Your task to perform on an android device: turn off picture-in-picture Image 0: 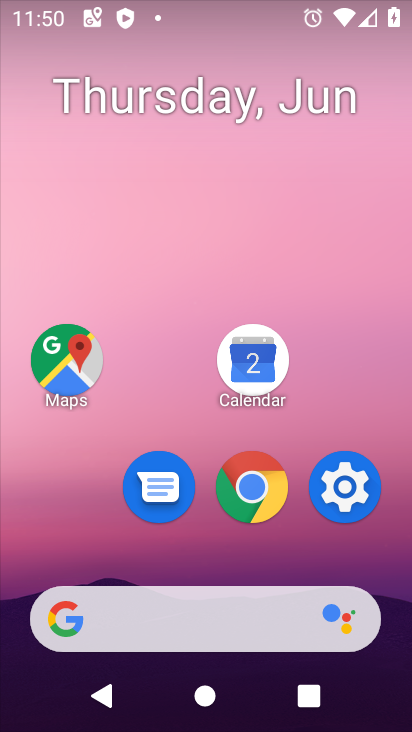
Step 0: click (337, 498)
Your task to perform on an android device: turn off picture-in-picture Image 1: 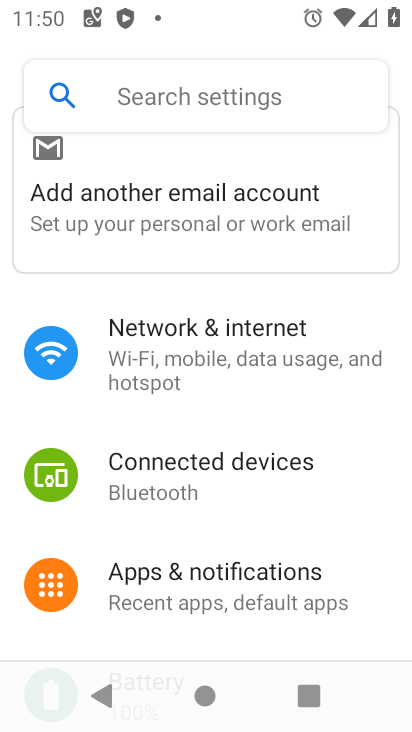
Step 1: click (189, 94)
Your task to perform on an android device: turn off picture-in-picture Image 2: 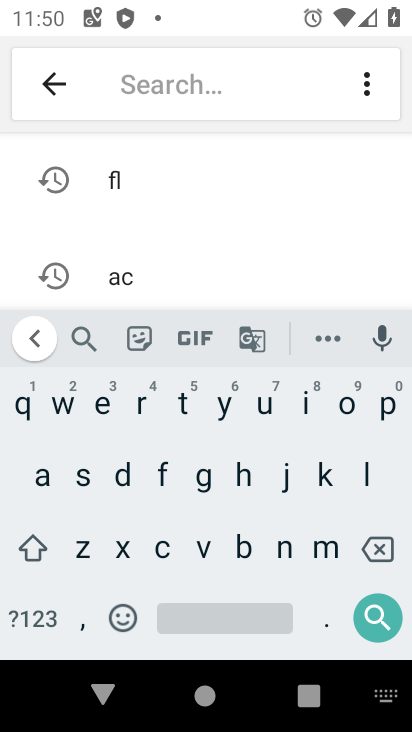
Step 2: click (384, 406)
Your task to perform on an android device: turn off picture-in-picture Image 3: 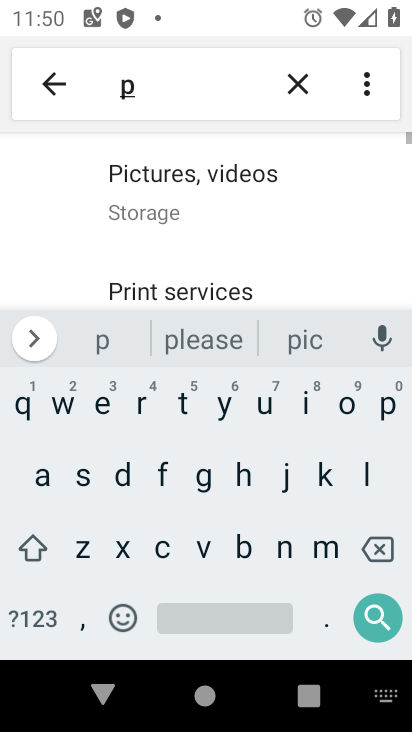
Step 3: click (306, 423)
Your task to perform on an android device: turn off picture-in-picture Image 4: 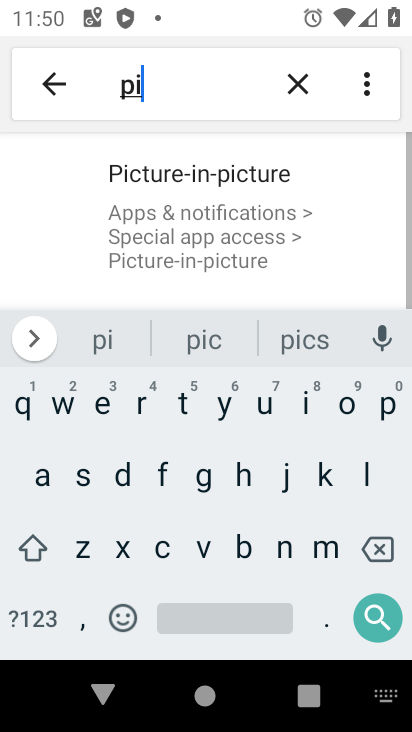
Step 4: click (162, 541)
Your task to perform on an android device: turn off picture-in-picture Image 5: 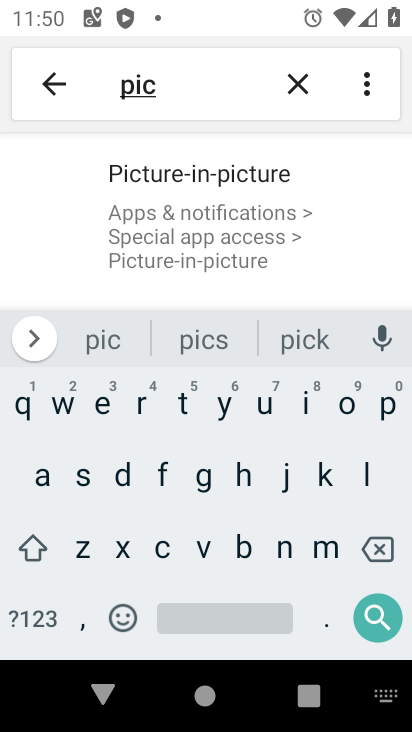
Step 5: click (212, 199)
Your task to perform on an android device: turn off picture-in-picture Image 6: 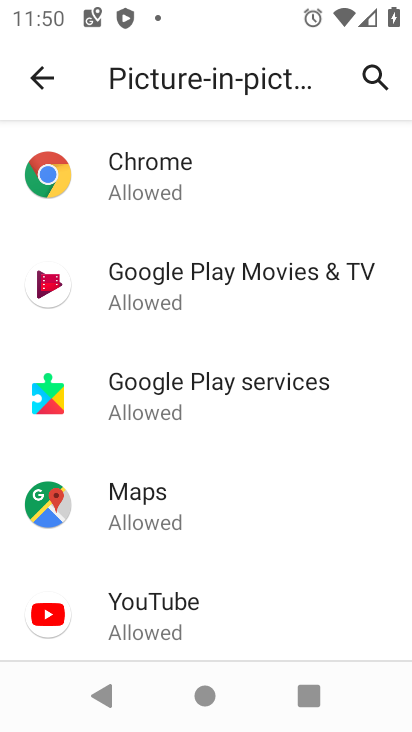
Step 6: task complete